Your task to perform on an android device: Open internet settings Image 0: 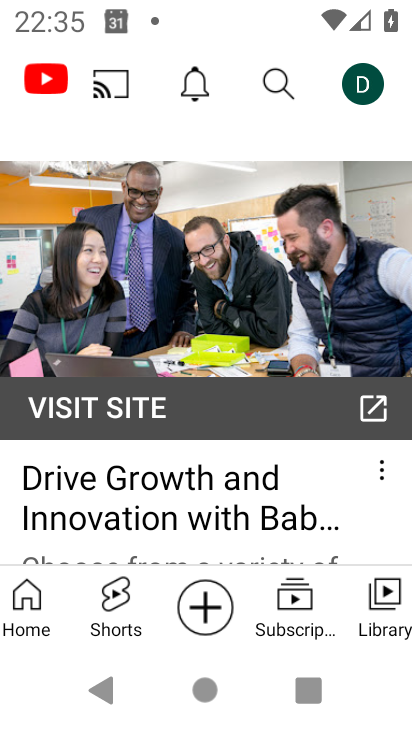
Step 0: press home button
Your task to perform on an android device: Open internet settings Image 1: 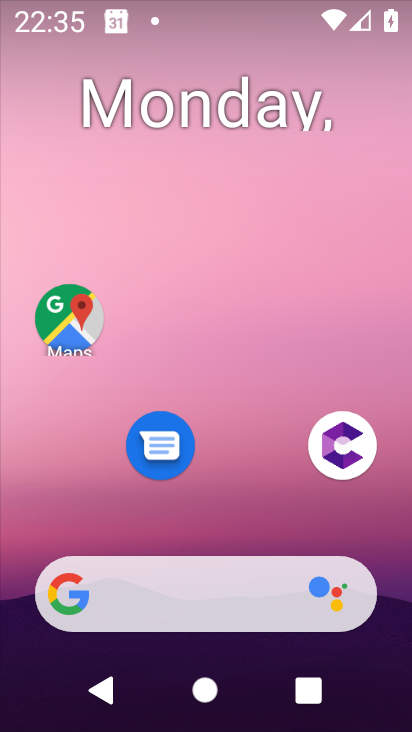
Step 1: drag from (257, 534) to (347, 0)
Your task to perform on an android device: Open internet settings Image 2: 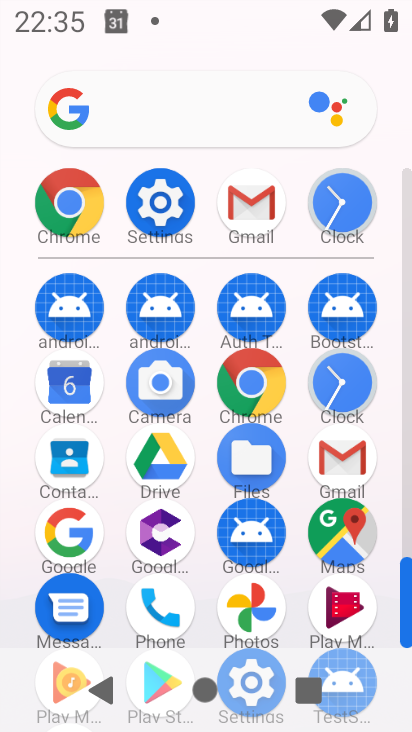
Step 2: click (174, 209)
Your task to perform on an android device: Open internet settings Image 3: 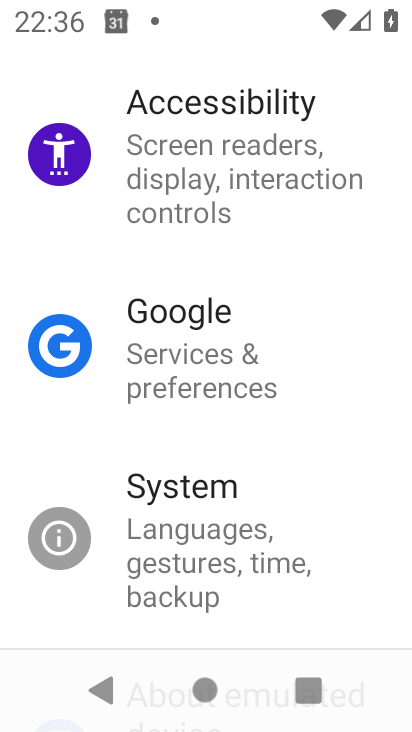
Step 3: drag from (288, 295) to (349, 719)
Your task to perform on an android device: Open internet settings Image 4: 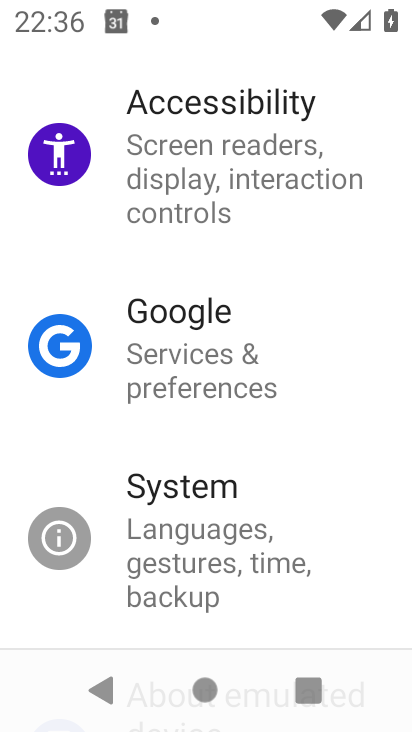
Step 4: drag from (320, 220) to (339, 730)
Your task to perform on an android device: Open internet settings Image 5: 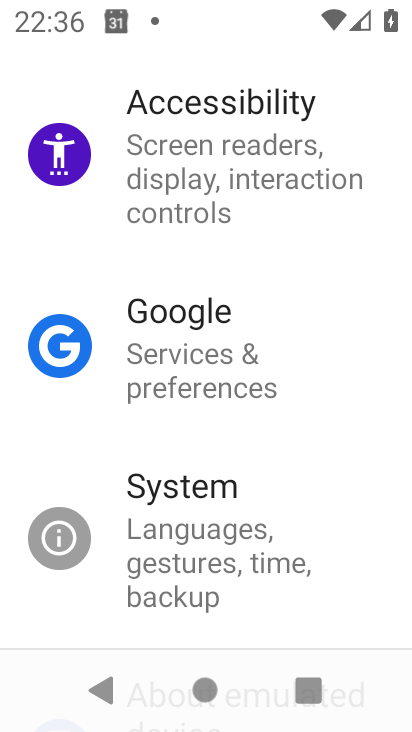
Step 5: drag from (352, 320) to (15, 726)
Your task to perform on an android device: Open internet settings Image 6: 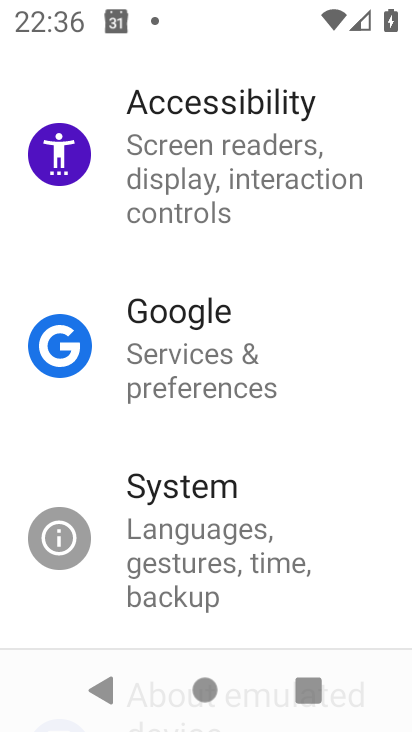
Step 6: drag from (43, 253) to (142, 700)
Your task to perform on an android device: Open internet settings Image 7: 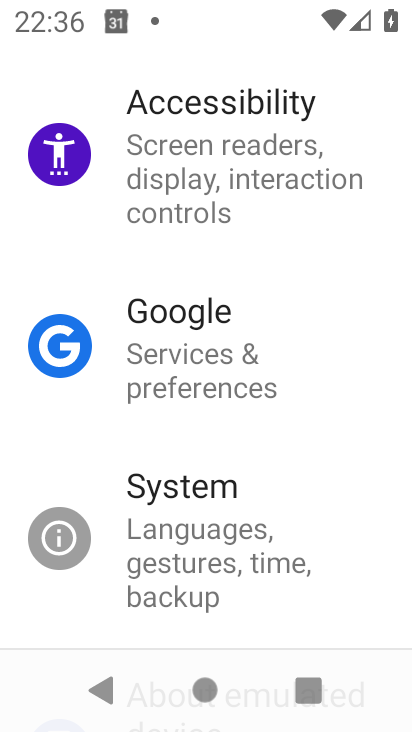
Step 7: drag from (88, 287) to (116, 600)
Your task to perform on an android device: Open internet settings Image 8: 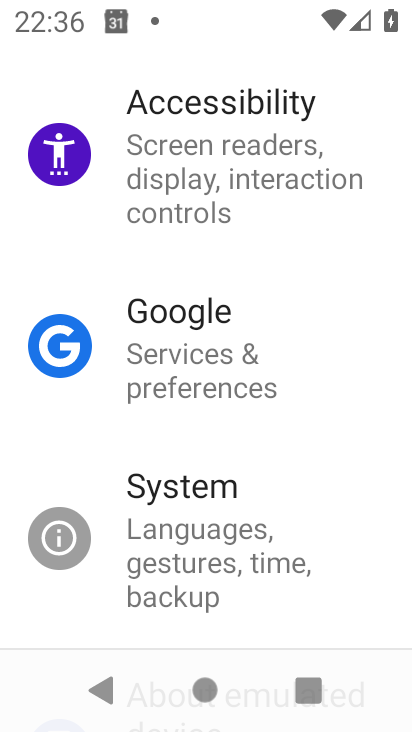
Step 8: drag from (60, 467) to (73, 217)
Your task to perform on an android device: Open internet settings Image 9: 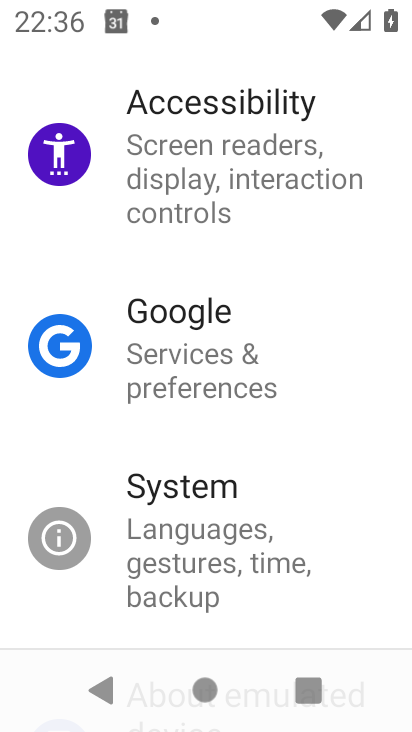
Step 9: drag from (79, 224) to (69, 646)
Your task to perform on an android device: Open internet settings Image 10: 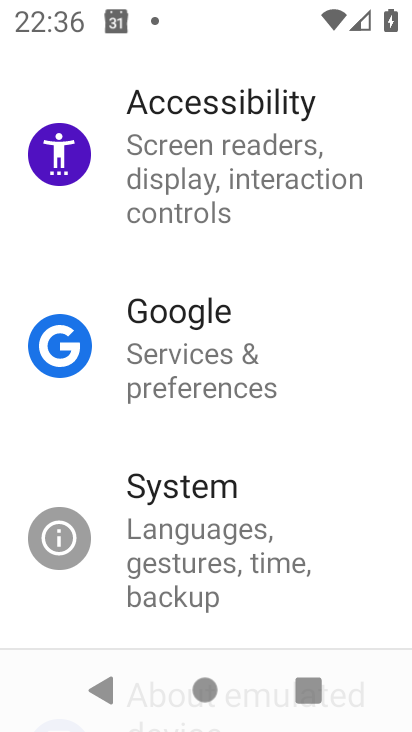
Step 10: drag from (46, 73) to (254, 731)
Your task to perform on an android device: Open internet settings Image 11: 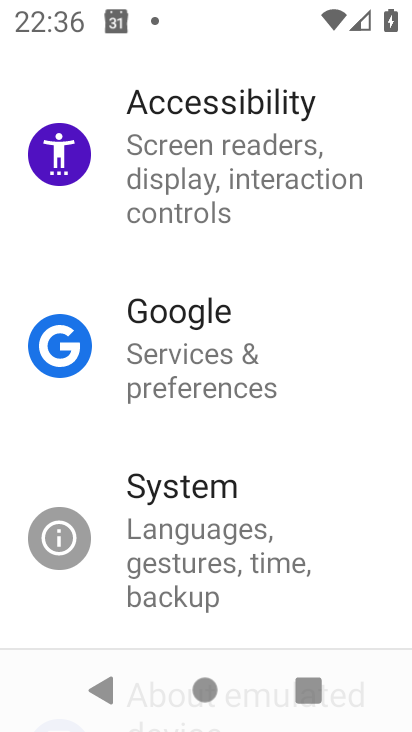
Step 11: drag from (89, 283) to (164, 723)
Your task to perform on an android device: Open internet settings Image 12: 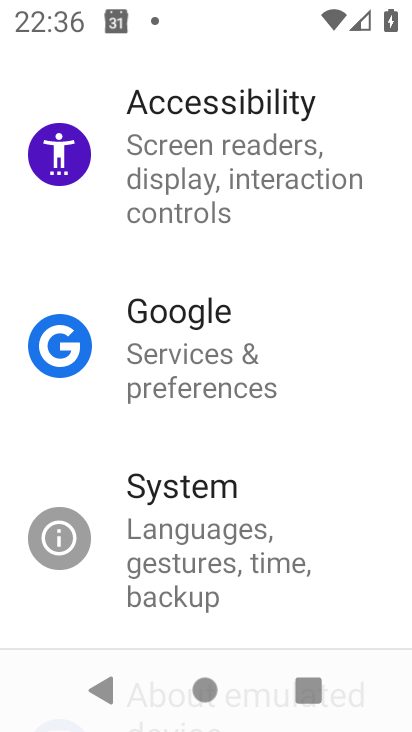
Step 12: drag from (370, 89) to (262, 715)
Your task to perform on an android device: Open internet settings Image 13: 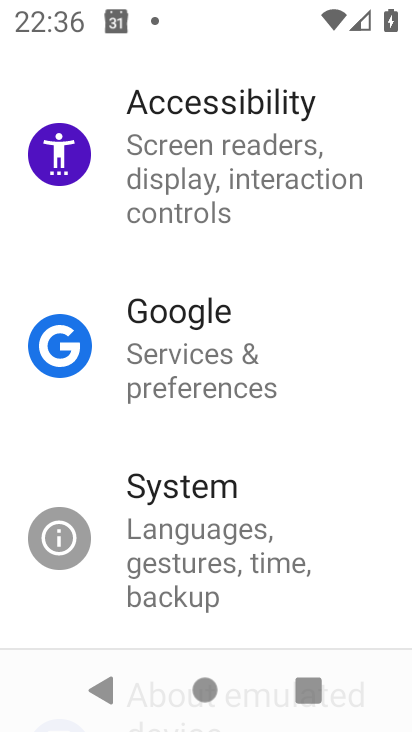
Step 13: drag from (273, 328) to (252, 688)
Your task to perform on an android device: Open internet settings Image 14: 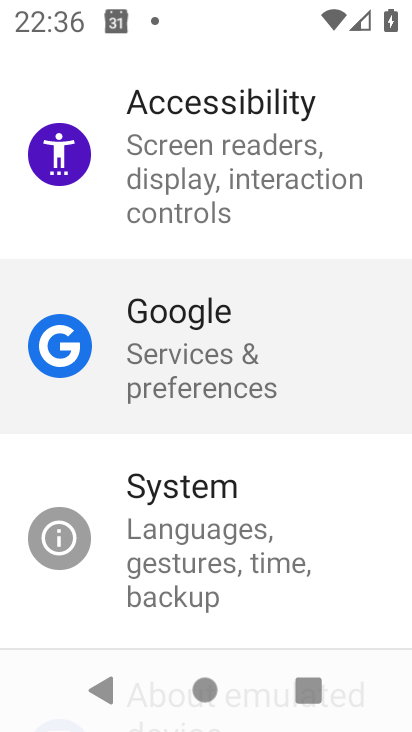
Step 14: drag from (181, 118) to (222, 590)
Your task to perform on an android device: Open internet settings Image 15: 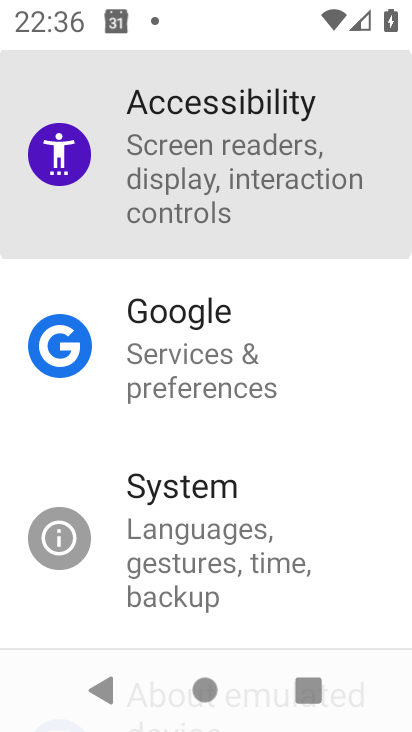
Step 15: drag from (188, 138) to (268, 682)
Your task to perform on an android device: Open internet settings Image 16: 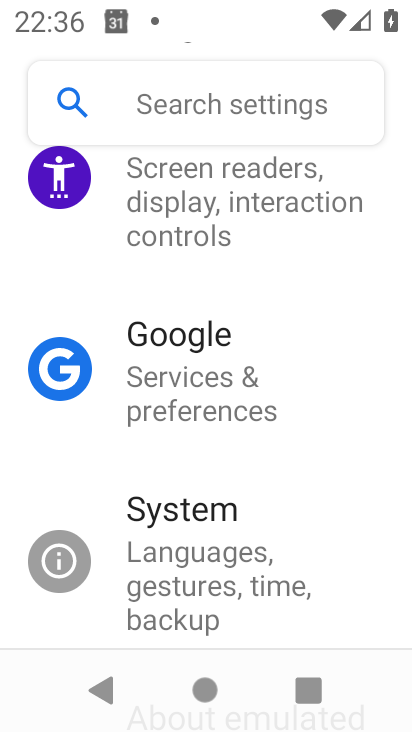
Step 16: drag from (267, 229) to (312, 720)
Your task to perform on an android device: Open internet settings Image 17: 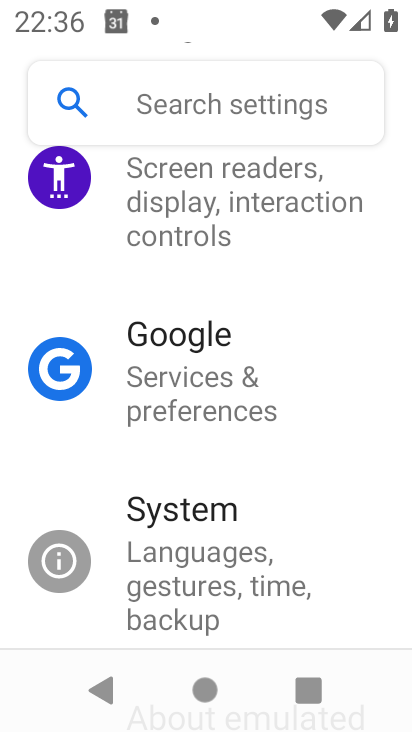
Step 17: drag from (327, 293) to (278, 715)
Your task to perform on an android device: Open internet settings Image 18: 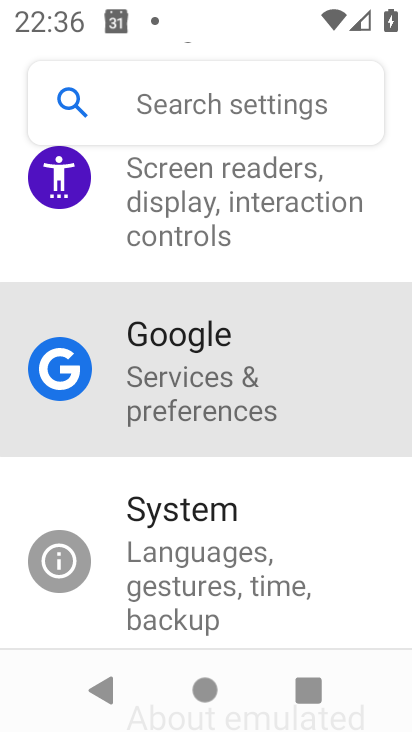
Step 18: drag from (233, 293) to (231, 644)
Your task to perform on an android device: Open internet settings Image 19: 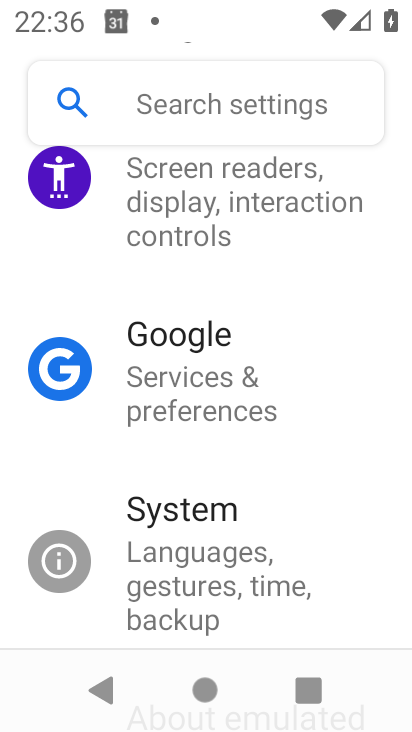
Step 19: drag from (202, 174) to (151, 731)
Your task to perform on an android device: Open internet settings Image 20: 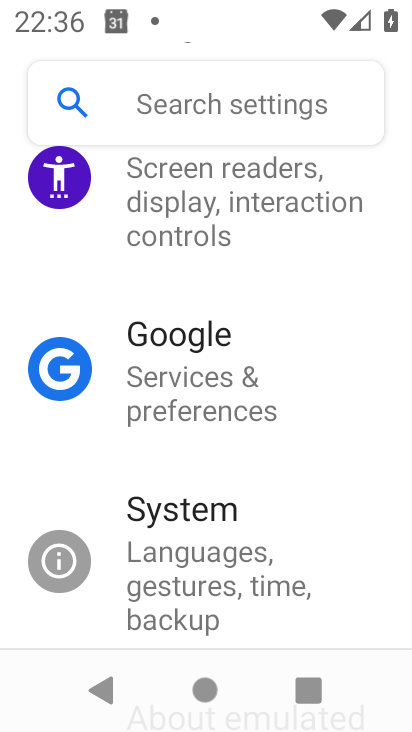
Step 20: drag from (99, 307) to (125, 713)
Your task to perform on an android device: Open internet settings Image 21: 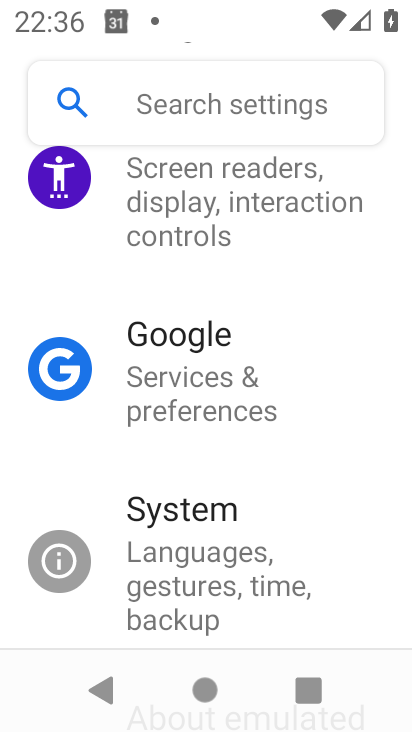
Step 21: drag from (347, 254) to (173, 628)
Your task to perform on an android device: Open internet settings Image 22: 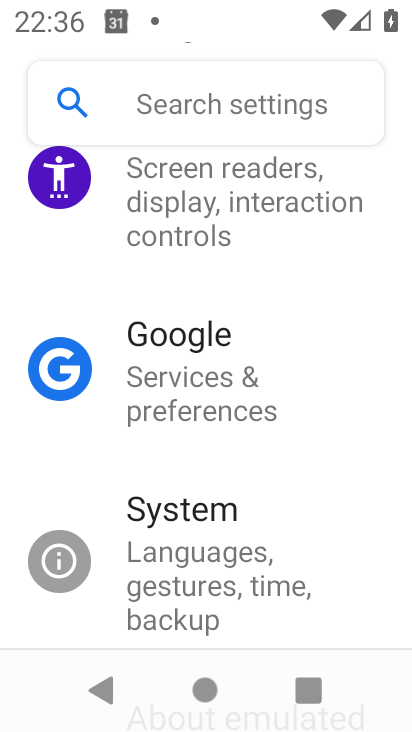
Step 22: drag from (60, 234) to (173, 729)
Your task to perform on an android device: Open internet settings Image 23: 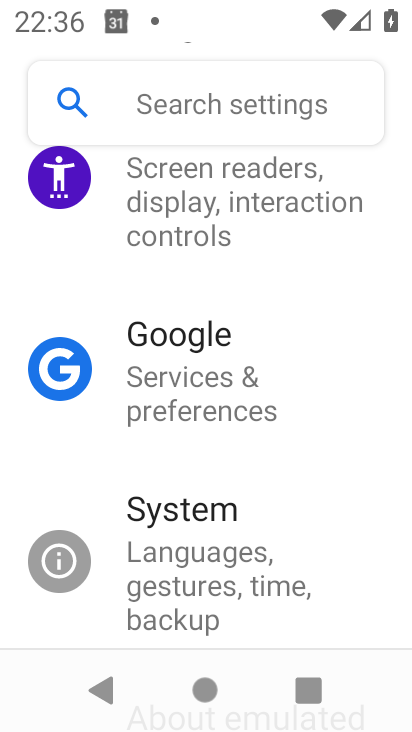
Step 23: drag from (198, 292) to (280, 640)
Your task to perform on an android device: Open internet settings Image 24: 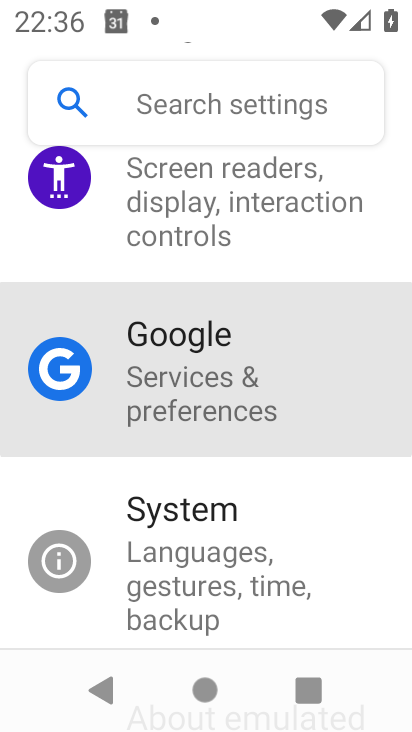
Step 24: drag from (312, 260) to (311, 714)
Your task to perform on an android device: Open internet settings Image 25: 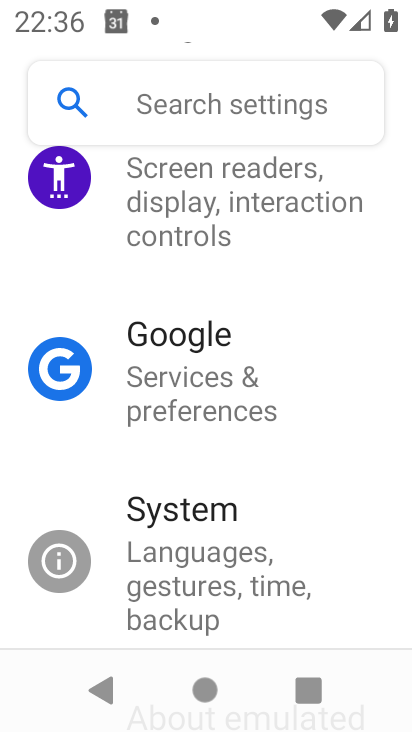
Step 25: drag from (157, 162) to (226, 726)
Your task to perform on an android device: Open internet settings Image 26: 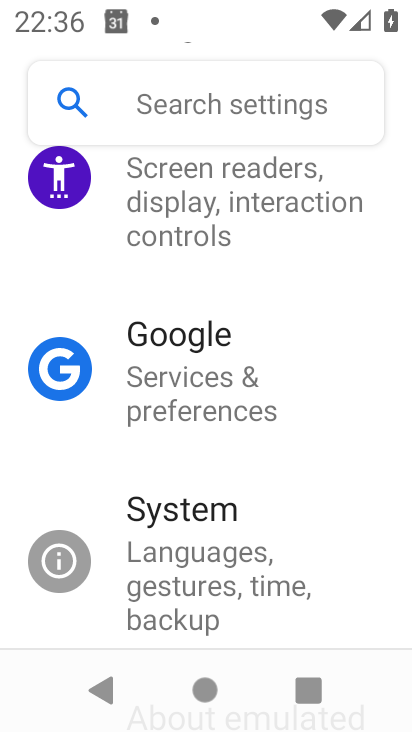
Step 26: drag from (17, 97) to (170, 706)
Your task to perform on an android device: Open internet settings Image 27: 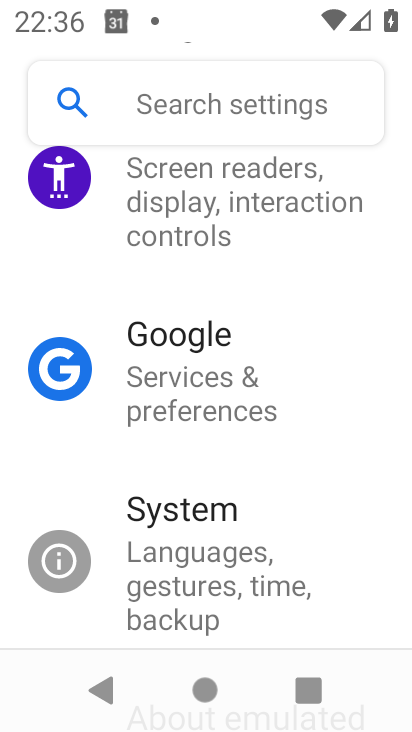
Step 27: press back button
Your task to perform on an android device: Open internet settings Image 28: 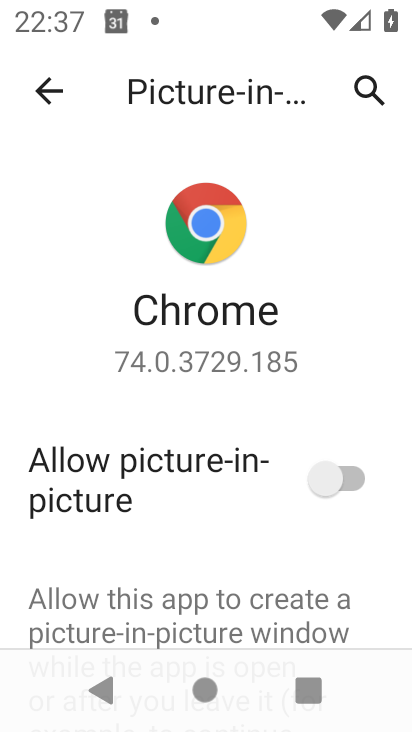
Step 28: press home button
Your task to perform on an android device: Open internet settings Image 29: 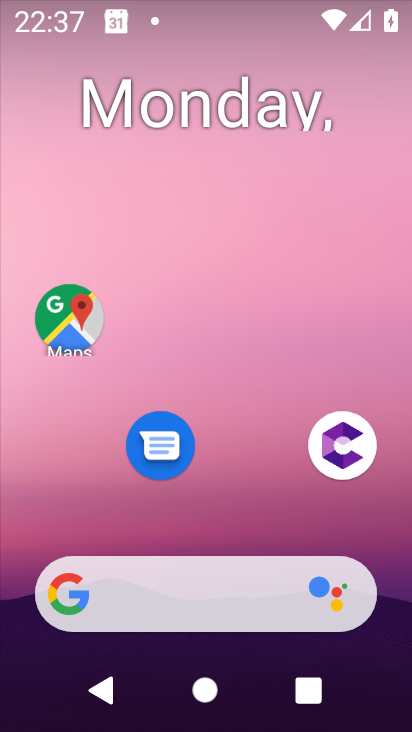
Step 29: drag from (214, 341) to (193, 0)
Your task to perform on an android device: Open internet settings Image 30: 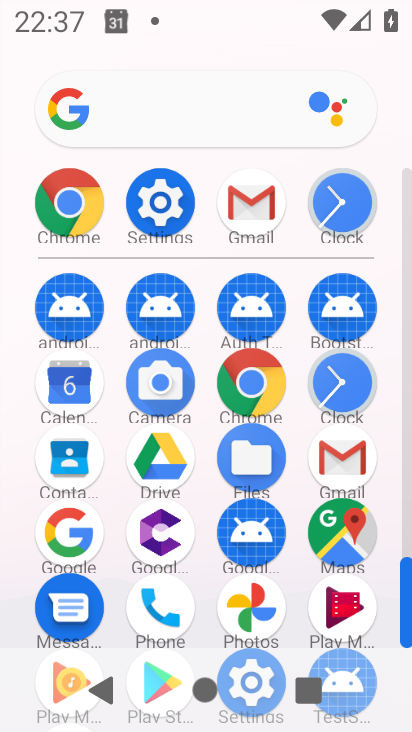
Step 30: click (166, 202)
Your task to perform on an android device: Open internet settings Image 31: 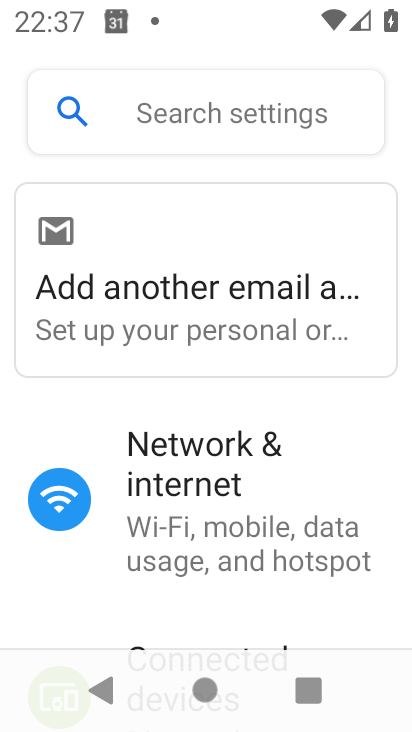
Step 31: click (225, 519)
Your task to perform on an android device: Open internet settings Image 32: 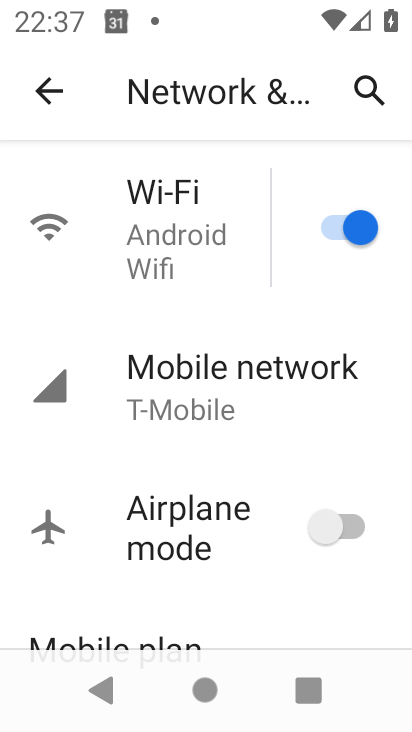
Step 32: task complete